Your task to perform on an android device: turn on sleep mode Image 0: 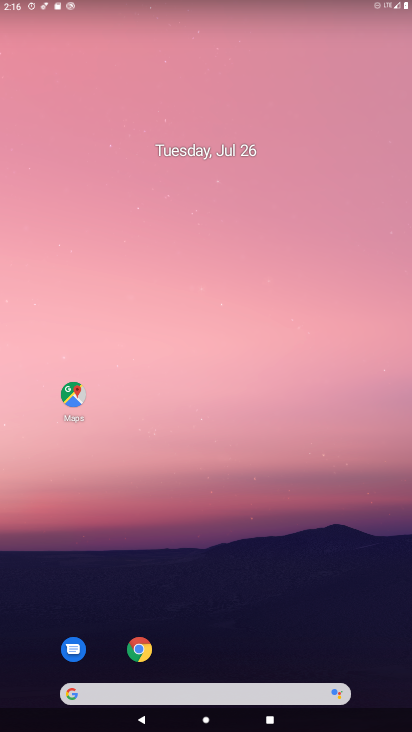
Step 0: drag from (371, 646) to (207, 110)
Your task to perform on an android device: turn on sleep mode Image 1: 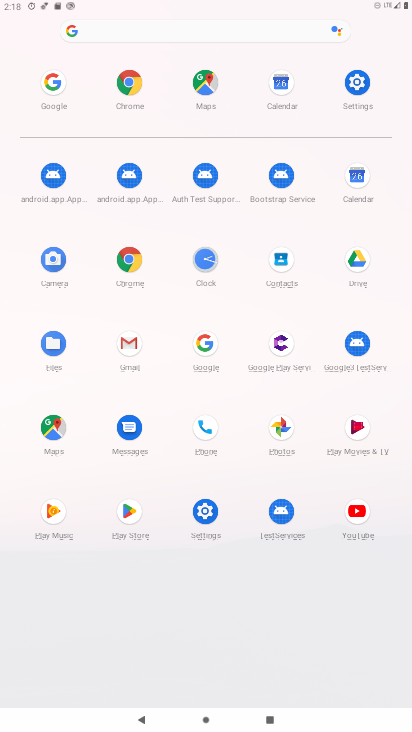
Step 1: click (193, 525)
Your task to perform on an android device: turn on sleep mode Image 2: 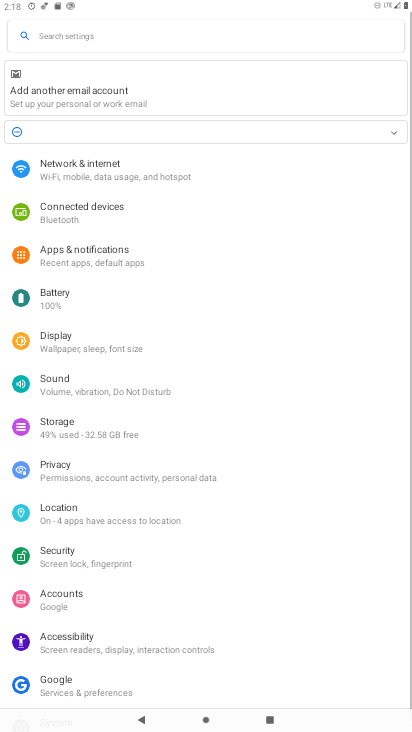
Step 2: task complete